Your task to perform on an android device: turn on sleep mode Image 0: 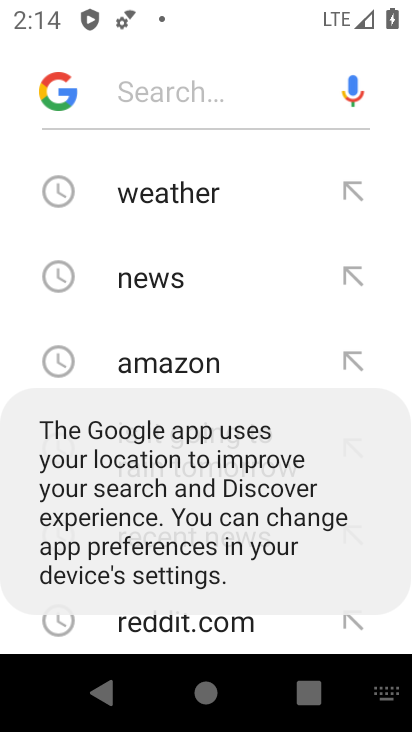
Step 0: press home button
Your task to perform on an android device: turn on sleep mode Image 1: 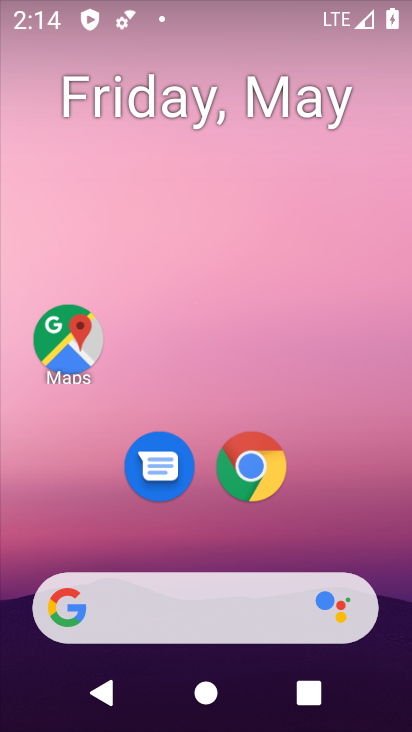
Step 1: drag from (329, 503) to (325, 117)
Your task to perform on an android device: turn on sleep mode Image 2: 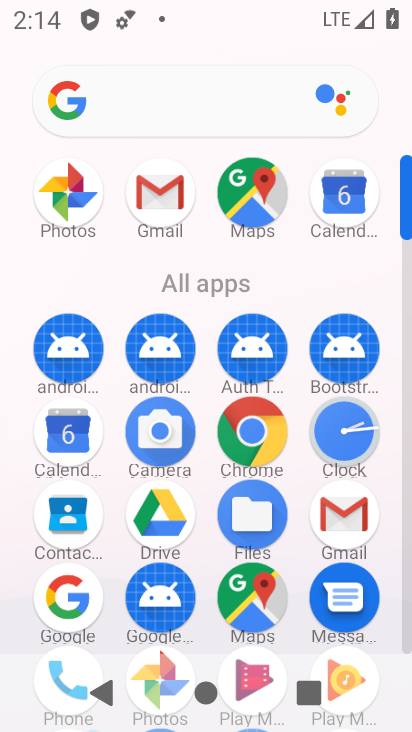
Step 2: drag from (290, 548) to (375, 92)
Your task to perform on an android device: turn on sleep mode Image 3: 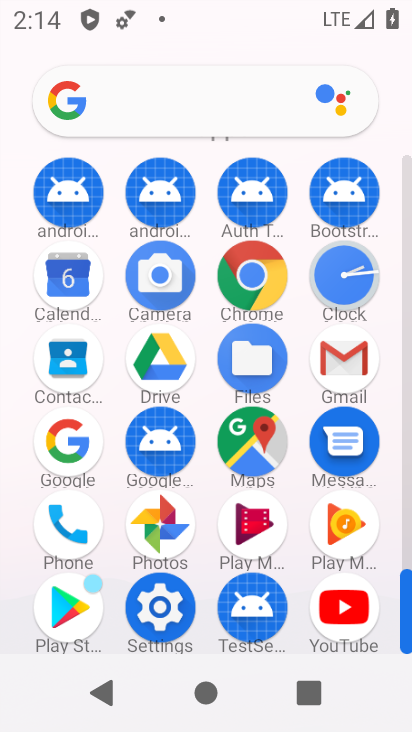
Step 3: click (175, 602)
Your task to perform on an android device: turn on sleep mode Image 4: 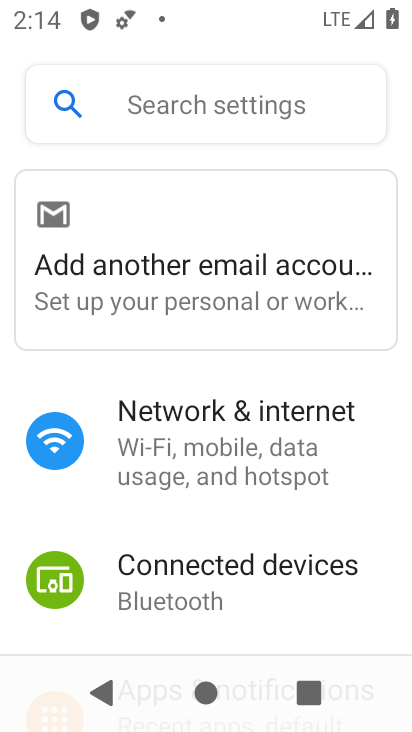
Step 4: drag from (246, 549) to (316, 118)
Your task to perform on an android device: turn on sleep mode Image 5: 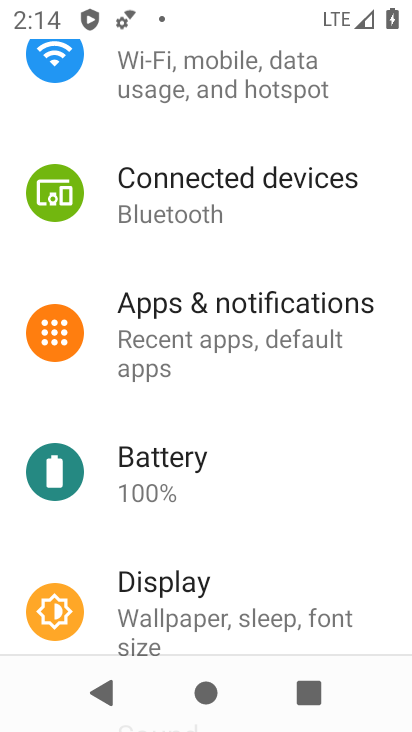
Step 5: click (162, 598)
Your task to perform on an android device: turn on sleep mode Image 6: 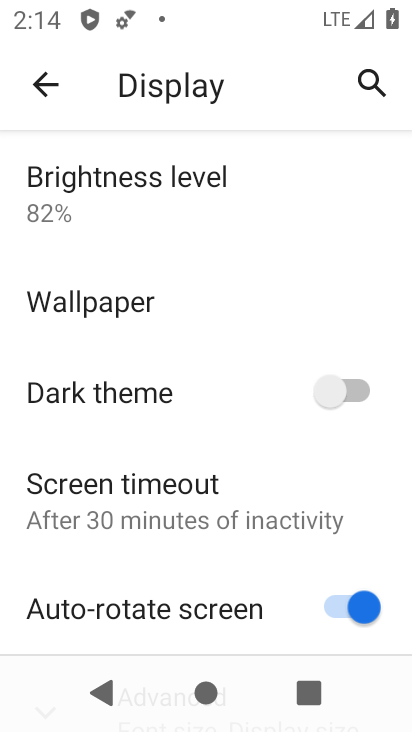
Step 6: drag from (197, 466) to (263, 644)
Your task to perform on an android device: turn on sleep mode Image 7: 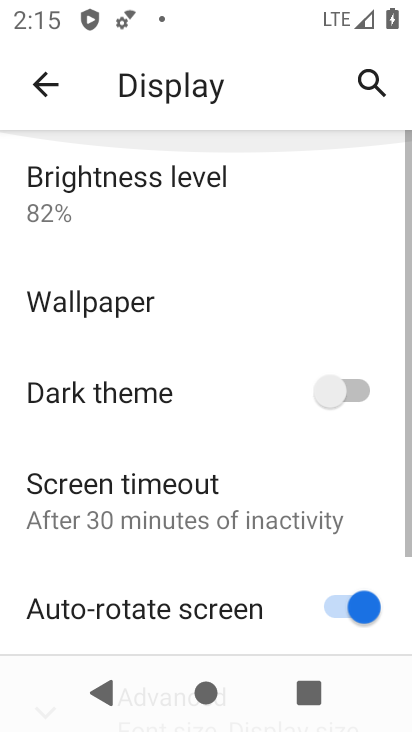
Step 7: drag from (261, 553) to (344, 225)
Your task to perform on an android device: turn on sleep mode Image 8: 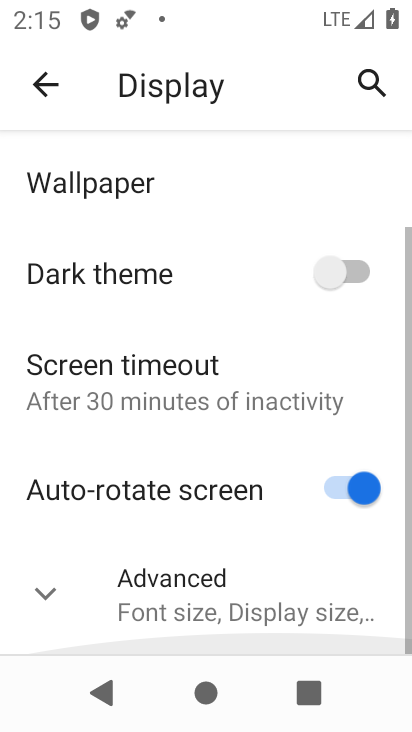
Step 8: click (164, 387)
Your task to perform on an android device: turn on sleep mode Image 9: 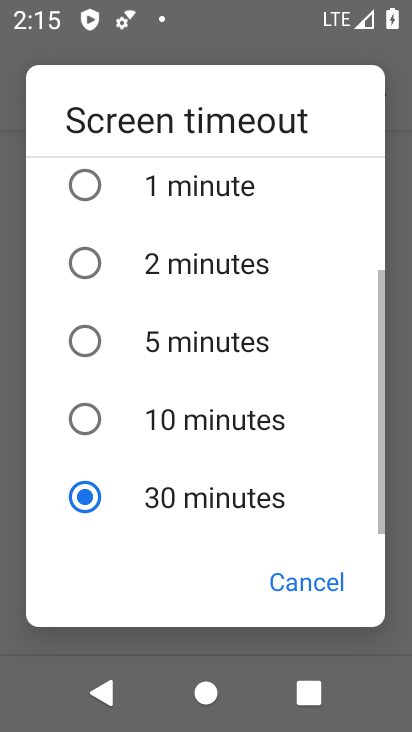
Step 9: click (248, 420)
Your task to perform on an android device: turn on sleep mode Image 10: 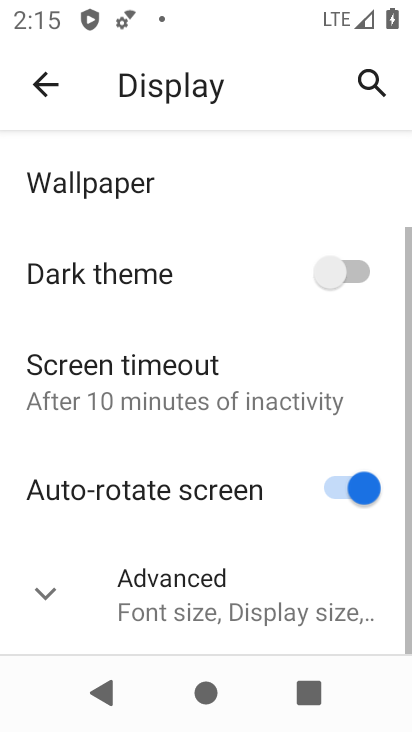
Step 10: click (205, 482)
Your task to perform on an android device: turn on sleep mode Image 11: 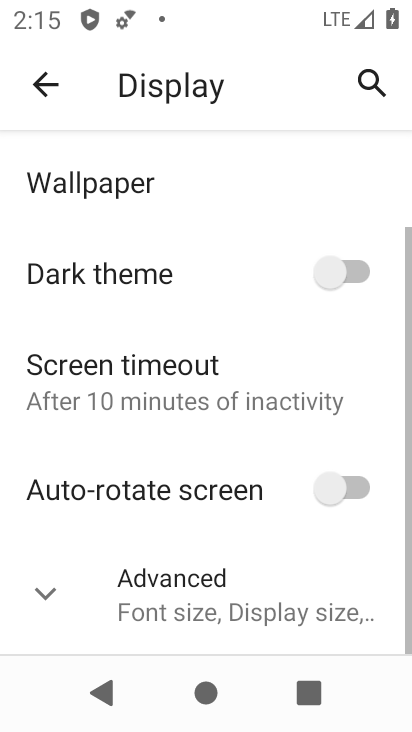
Step 11: click (345, 490)
Your task to perform on an android device: turn on sleep mode Image 12: 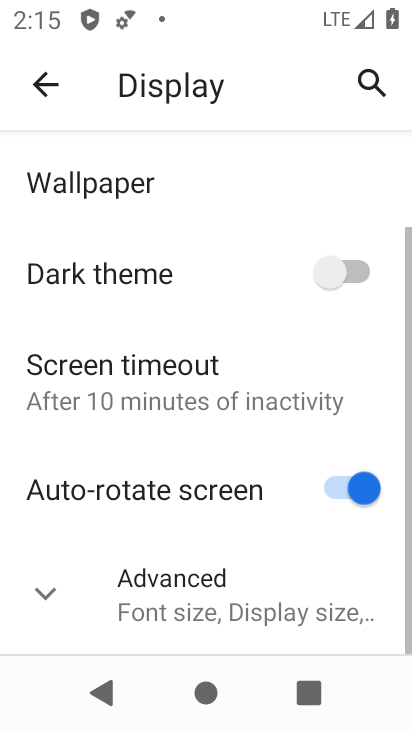
Step 12: task complete